Your task to perform on an android device: Open Amazon Image 0: 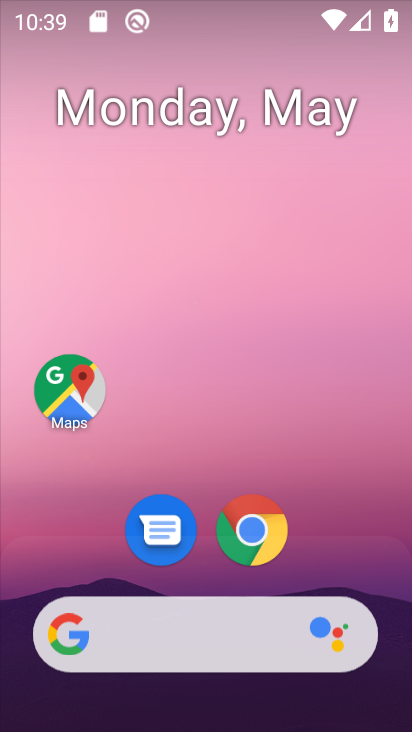
Step 0: click (251, 529)
Your task to perform on an android device: Open Amazon Image 1: 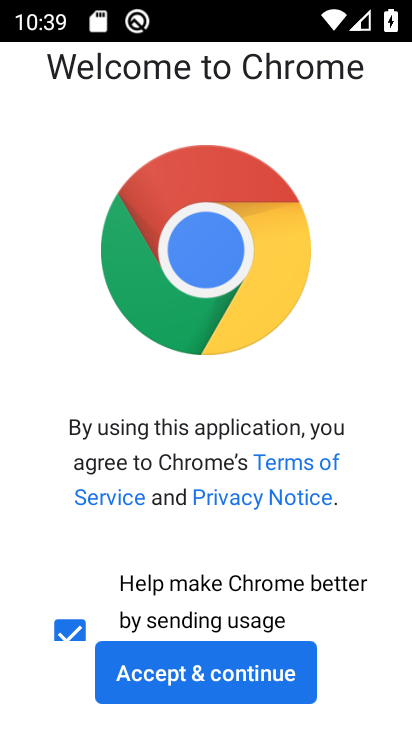
Step 1: click (242, 662)
Your task to perform on an android device: Open Amazon Image 2: 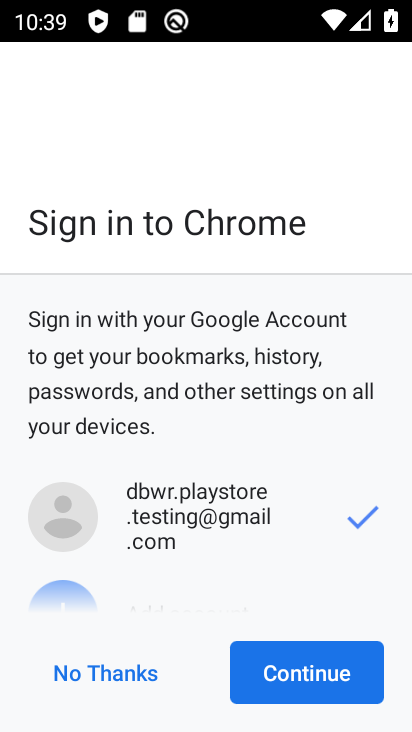
Step 2: click (292, 670)
Your task to perform on an android device: Open Amazon Image 3: 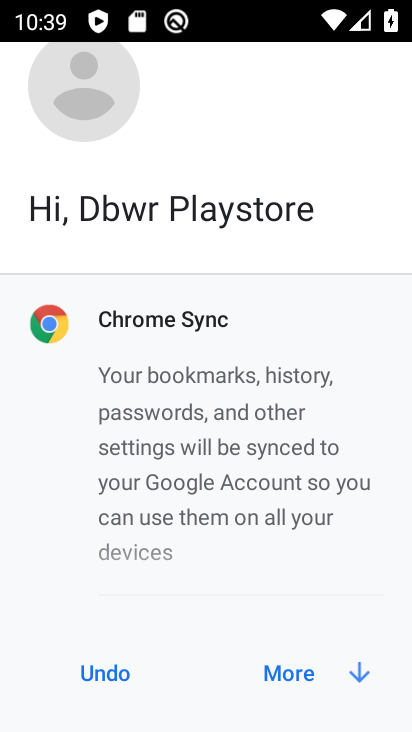
Step 3: click (292, 670)
Your task to perform on an android device: Open Amazon Image 4: 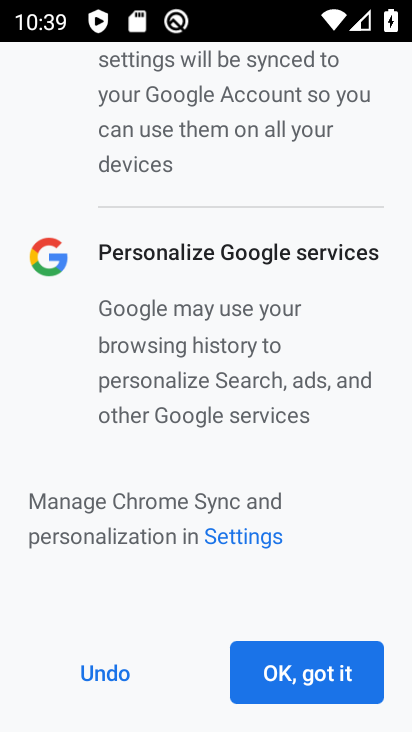
Step 4: click (292, 670)
Your task to perform on an android device: Open Amazon Image 5: 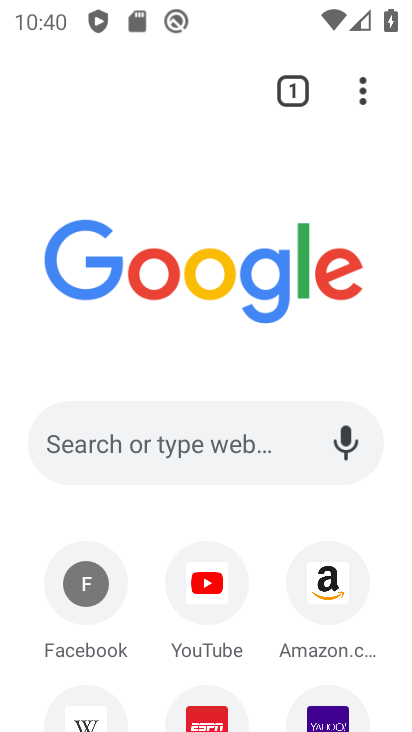
Step 5: click (334, 583)
Your task to perform on an android device: Open Amazon Image 6: 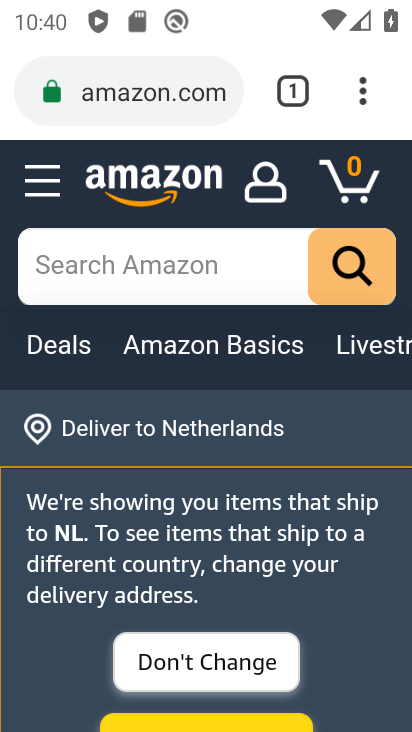
Step 6: task complete